Your task to perform on an android device: Open privacy settings Image 0: 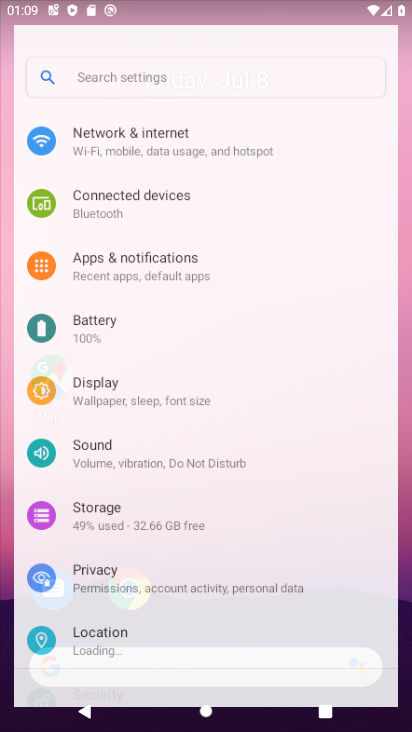
Step 0: drag from (201, 620) to (184, 136)
Your task to perform on an android device: Open privacy settings Image 1: 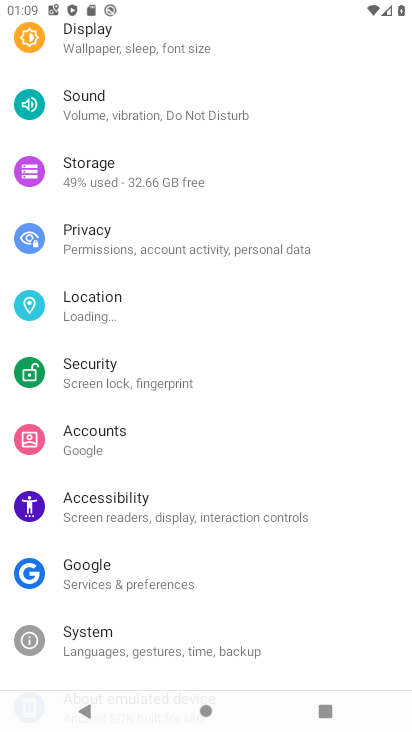
Step 1: drag from (210, 140) to (234, 656)
Your task to perform on an android device: Open privacy settings Image 2: 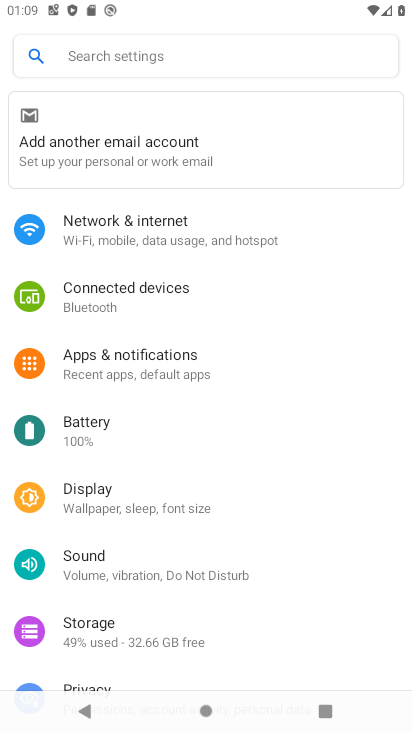
Step 2: drag from (127, 649) to (164, 389)
Your task to perform on an android device: Open privacy settings Image 3: 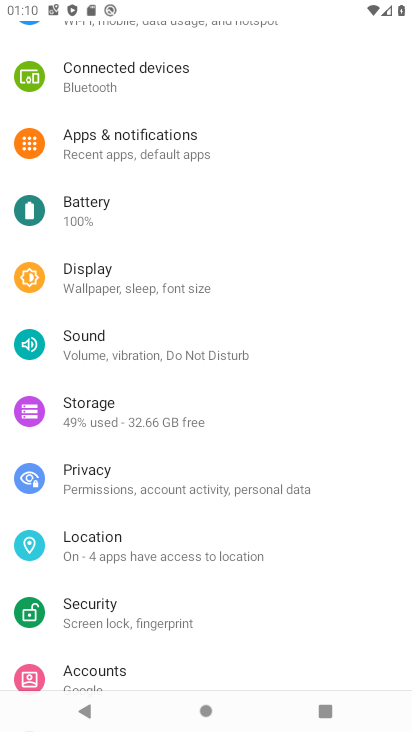
Step 3: click (138, 485)
Your task to perform on an android device: Open privacy settings Image 4: 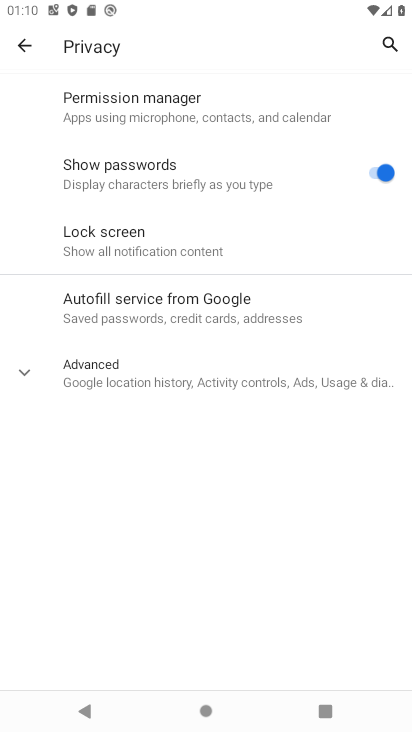
Step 4: task complete